Your task to perform on an android device: turn pop-ups on in chrome Image 0: 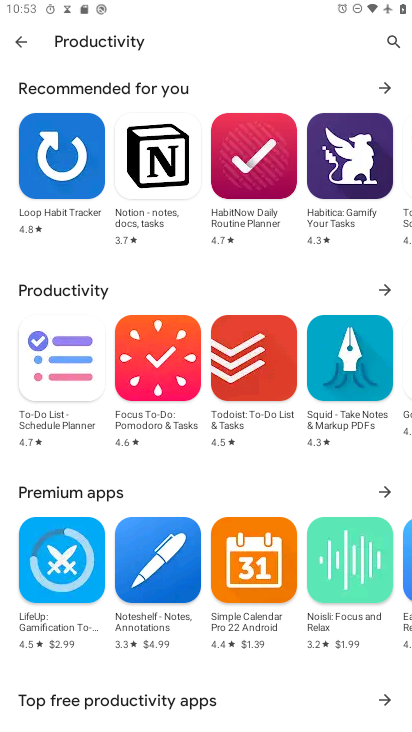
Step 0: press home button
Your task to perform on an android device: turn pop-ups on in chrome Image 1: 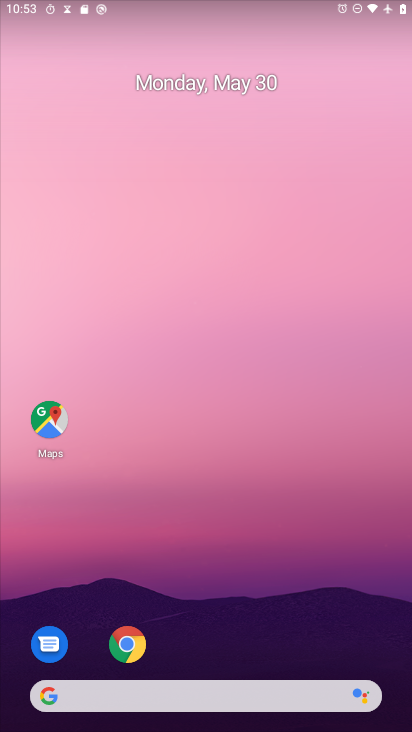
Step 1: drag from (208, 609) to (220, 82)
Your task to perform on an android device: turn pop-ups on in chrome Image 2: 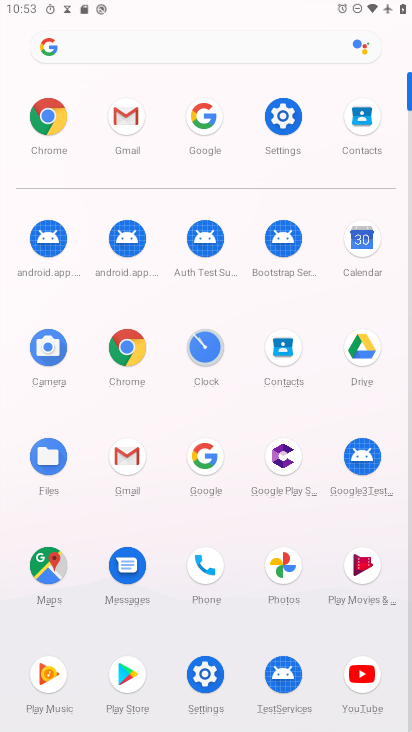
Step 2: click (47, 116)
Your task to perform on an android device: turn pop-ups on in chrome Image 3: 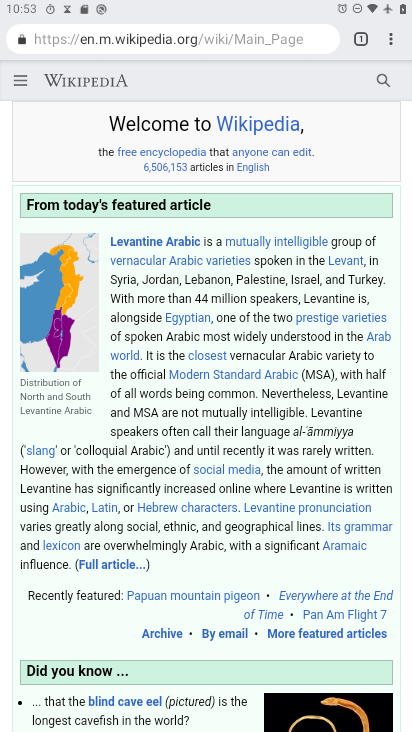
Step 3: click (386, 34)
Your task to perform on an android device: turn pop-ups on in chrome Image 4: 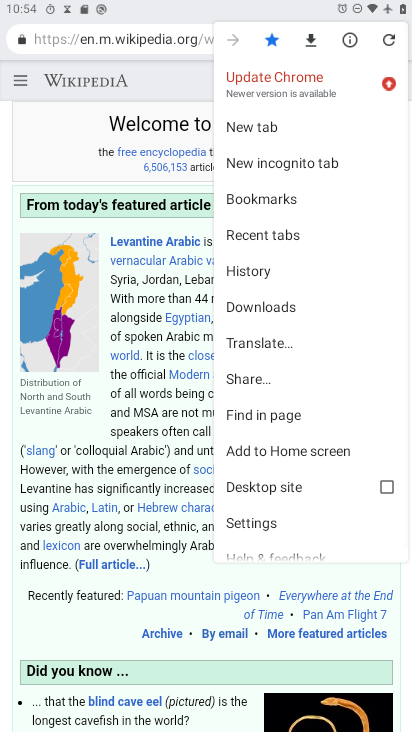
Step 4: click (264, 517)
Your task to perform on an android device: turn pop-ups on in chrome Image 5: 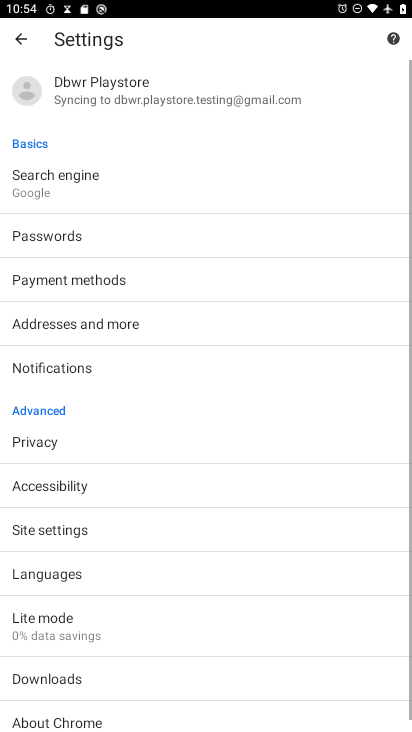
Step 5: drag from (178, 586) to (132, 294)
Your task to perform on an android device: turn pop-ups on in chrome Image 6: 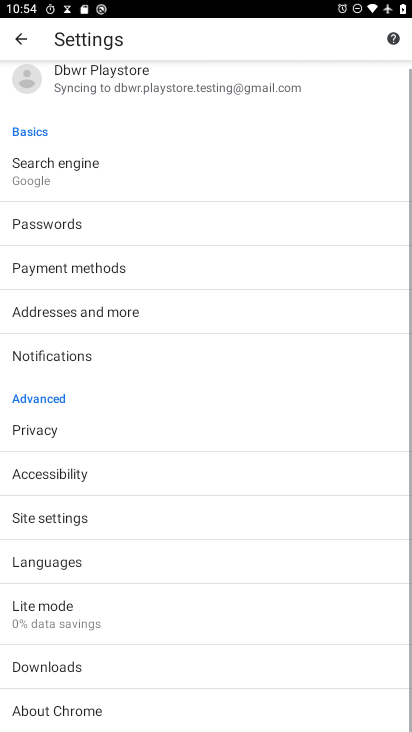
Step 6: click (66, 524)
Your task to perform on an android device: turn pop-ups on in chrome Image 7: 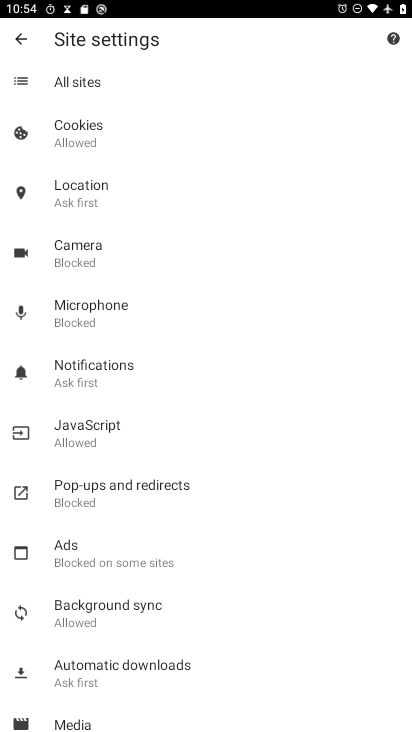
Step 7: click (140, 495)
Your task to perform on an android device: turn pop-ups on in chrome Image 8: 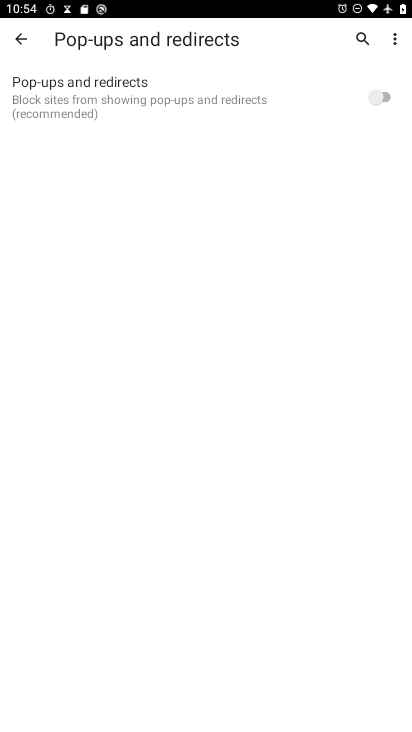
Step 8: click (376, 89)
Your task to perform on an android device: turn pop-ups on in chrome Image 9: 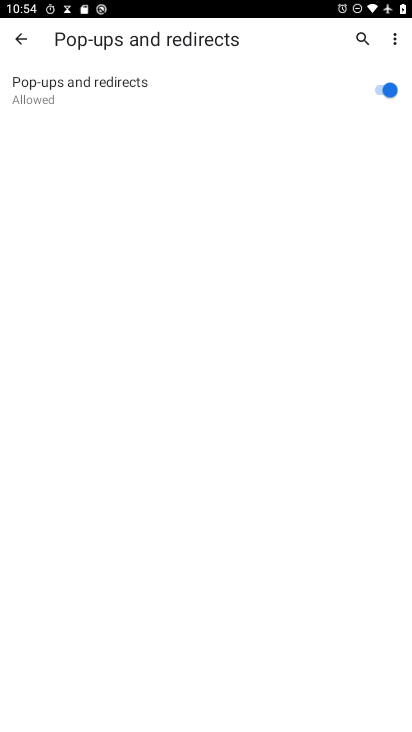
Step 9: task complete